Your task to perform on an android device: Go to privacy settings Image 0: 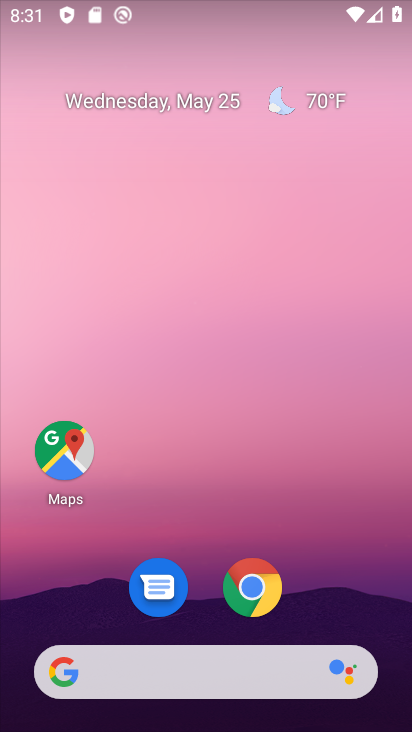
Step 0: drag from (199, 608) to (252, 36)
Your task to perform on an android device: Go to privacy settings Image 1: 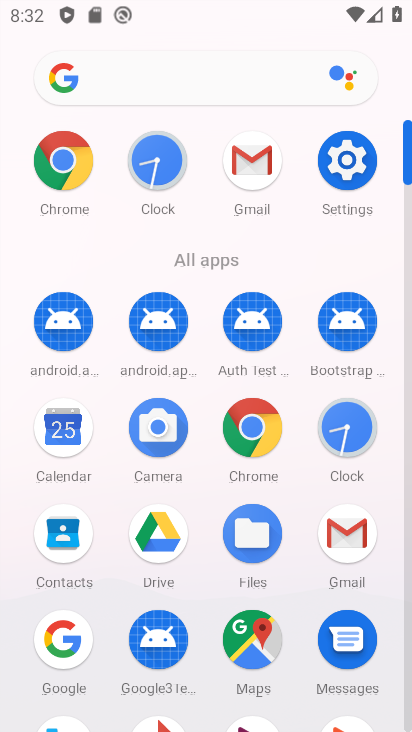
Step 1: click (356, 191)
Your task to perform on an android device: Go to privacy settings Image 2: 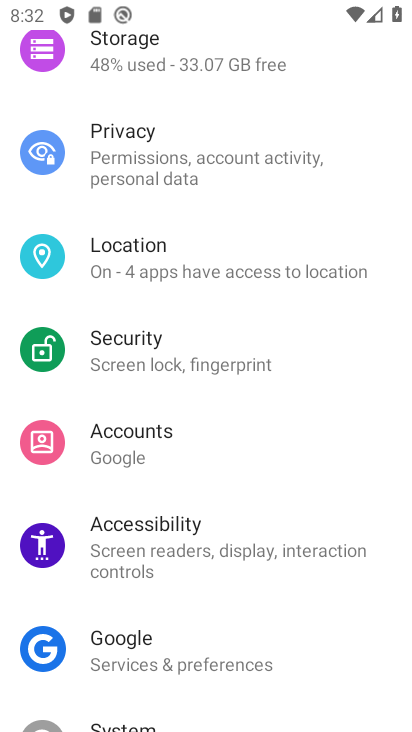
Step 2: click (163, 183)
Your task to perform on an android device: Go to privacy settings Image 3: 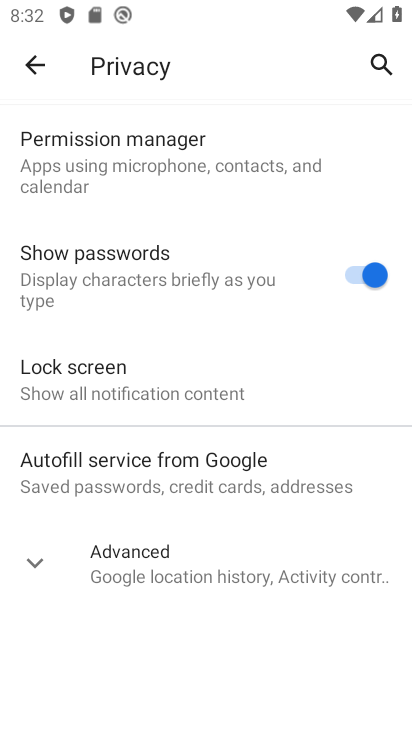
Step 3: task complete